Your task to perform on an android device: change the clock display to digital Image 0: 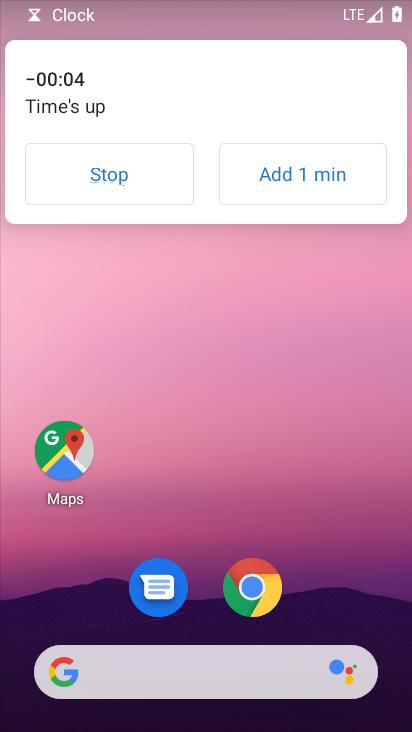
Step 0: click (131, 179)
Your task to perform on an android device: change the clock display to digital Image 1: 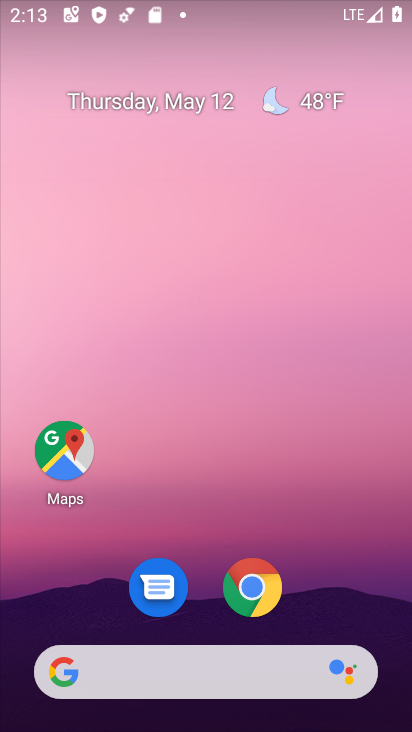
Step 1: drag from (212, 648) to (204, 262)
Your task to perform on an android device: change the clock display to digital Image 2: 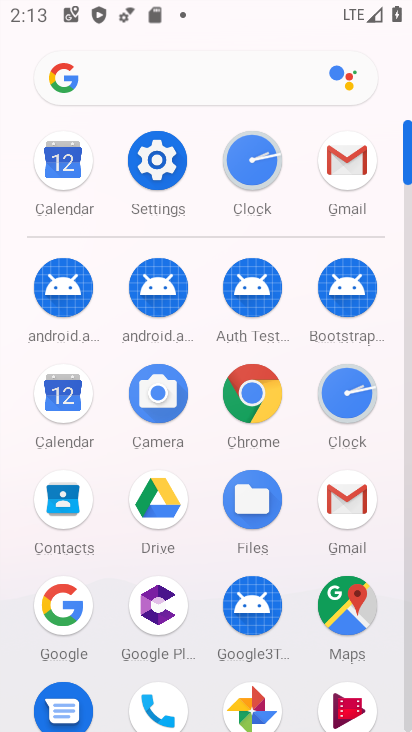
Step 2: click (253, 177)
Your task to perform on an android device: change the clock display to digital Image 3: 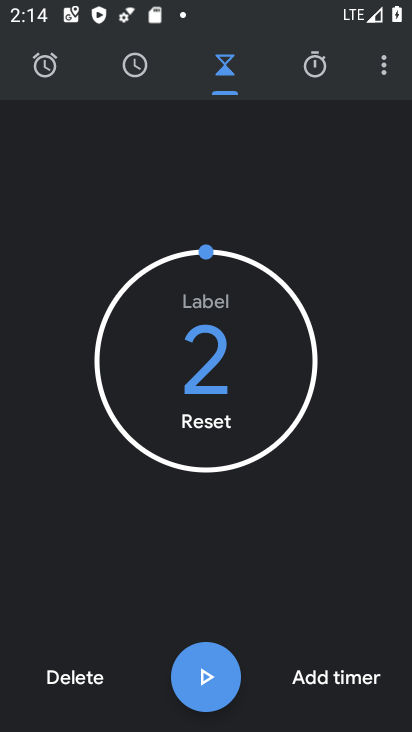
Step 3: click (381, 68)
Your task to perform on an android device: change the clock display to digital Image 4: 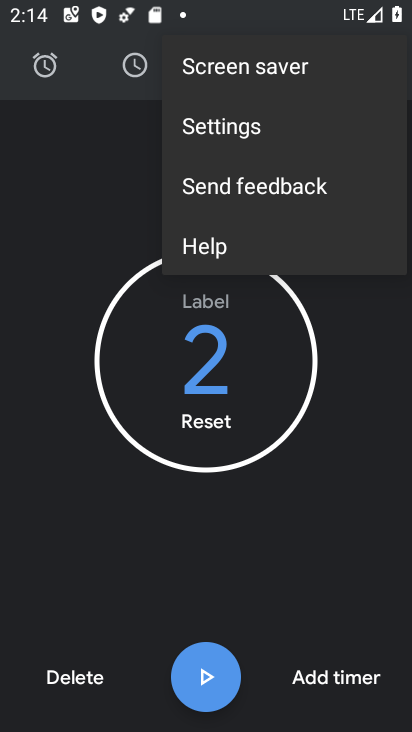
Step 4: click (244, 137)
Your task to perform on an android device: change the clock display to digital Image 5: 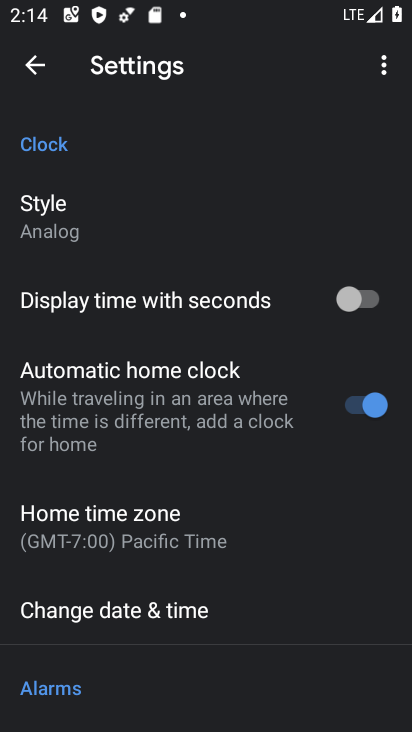
Step 5: click (107, 206)
Your task to perform on an android device: change the clock display to digital Image 6: 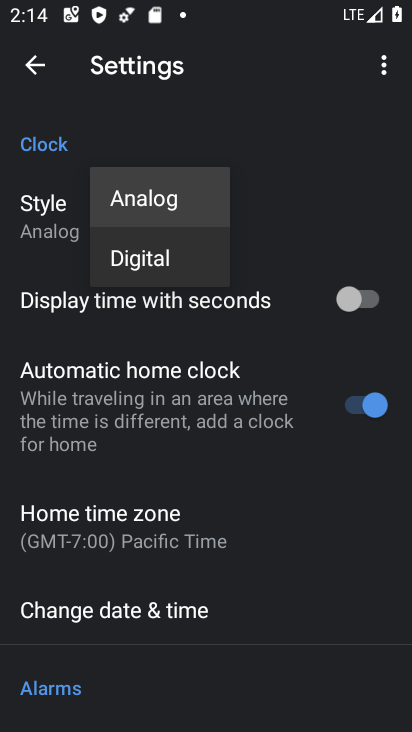
Step 6: click (141, 255)
Your task to perform on an android device: change the clock display to digital Image 7: 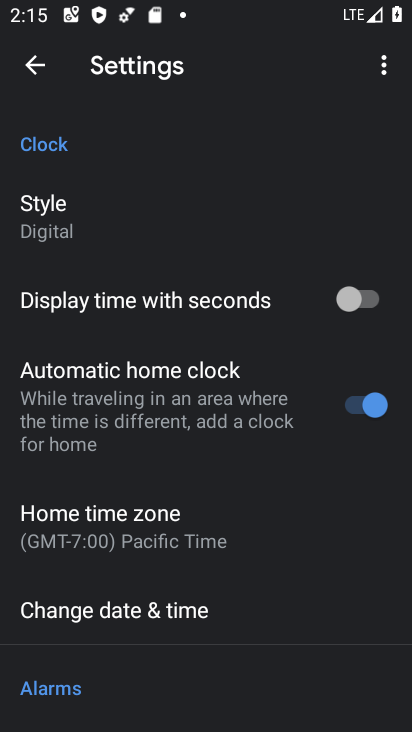
Step 7: task complete